Your task to perform on an android device: toggle notification dots Image 0: 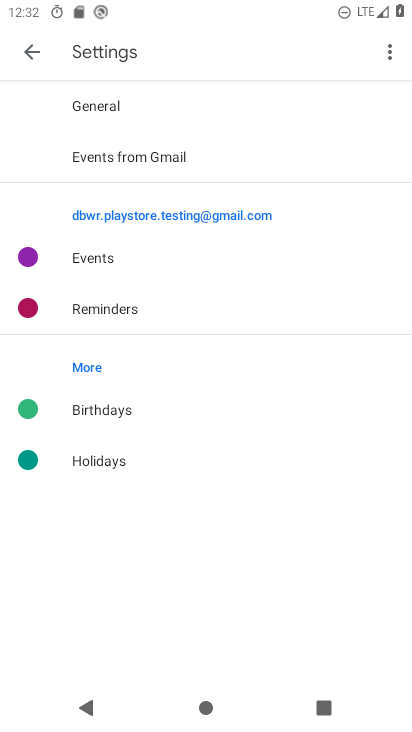
Step 0: press home button
Your task to perform on an android device: toggle notification dots Image 1: 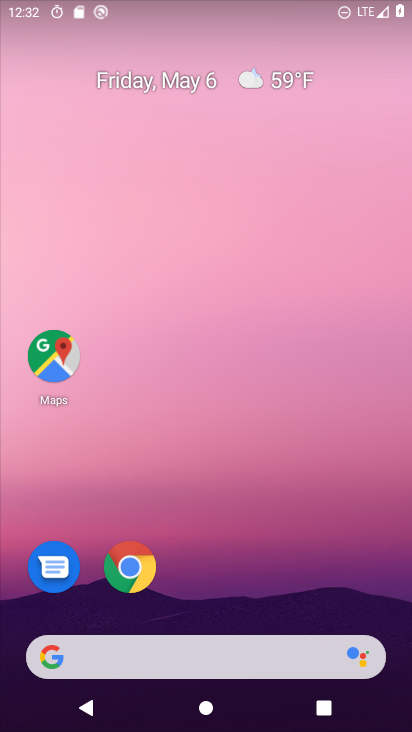
Step 1: drag from (326, 614) to (324, 4)
Your task to perform on an android device: toggle notification dots Image 2: 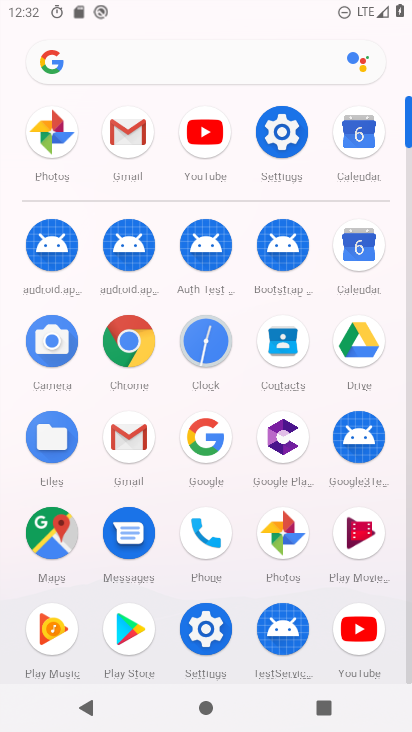
Step 2: click (288, 139)
Your task to perform on an android device: toggle notification dots Image 3: 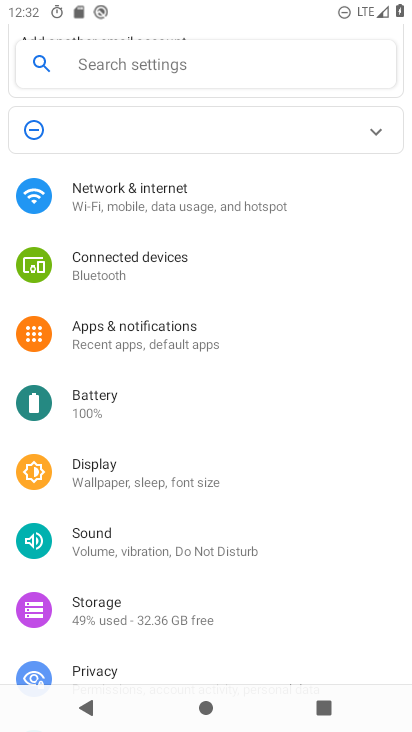
Step 3: click (144, 332)
Your task to perform on an android device: toggle notification dots Image 4: 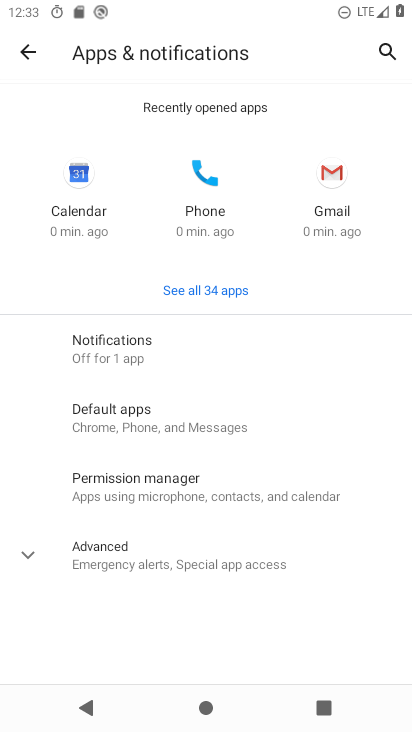
Step 4: click (131, 361)
Your task to perform on an android device: toggle notification dots Image 5: 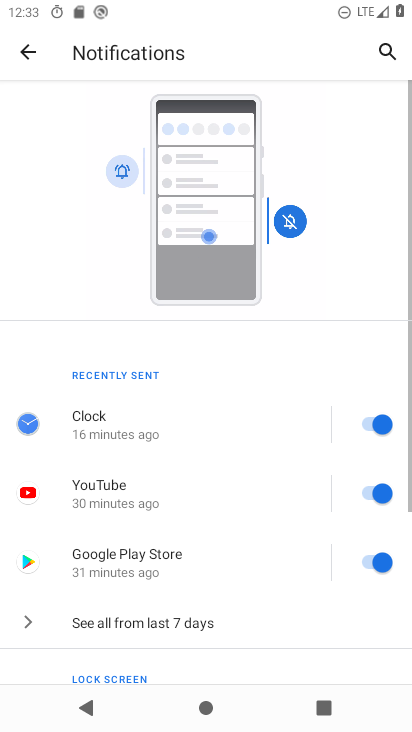
Step 5: drag from (128, 609) to (156, 99)
Your task to perform on an android device: toggle notification dots Image 6: 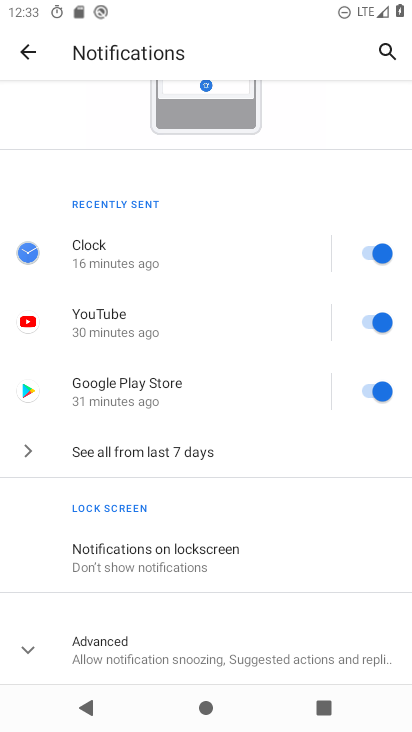
Step 6: click (25, 657)
Your task to perform on an android device: toggle notification dots Image 7: 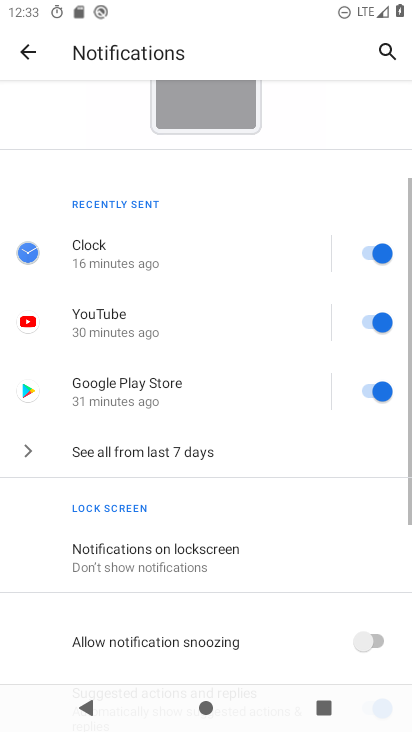
Step 7: drag from (228, 561) to (212, 232)
Your task to perform on an android device: toggle notification dots Image 8: 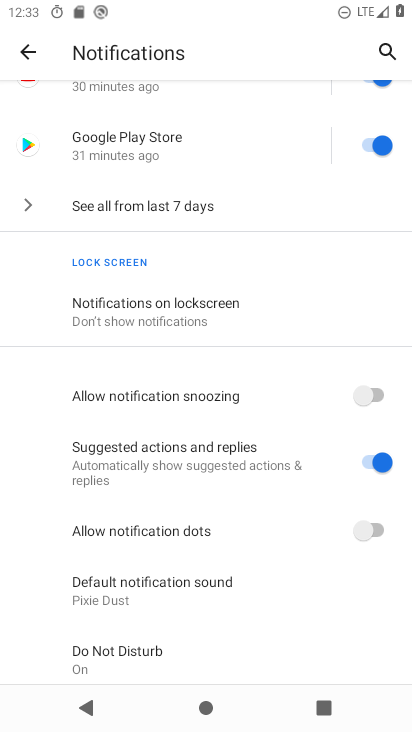
Step 8: click (382, 532)
Your task to perform on an android device: toggle notification dots Image 9: 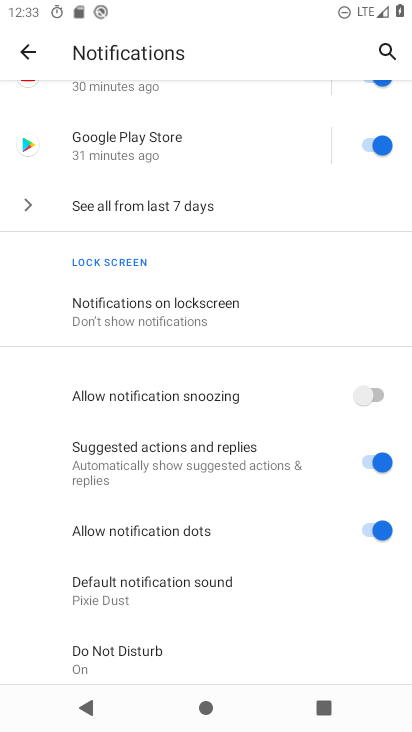
Step 9: task complete